Your task to perform on an android device: Go to Maps Image 0: 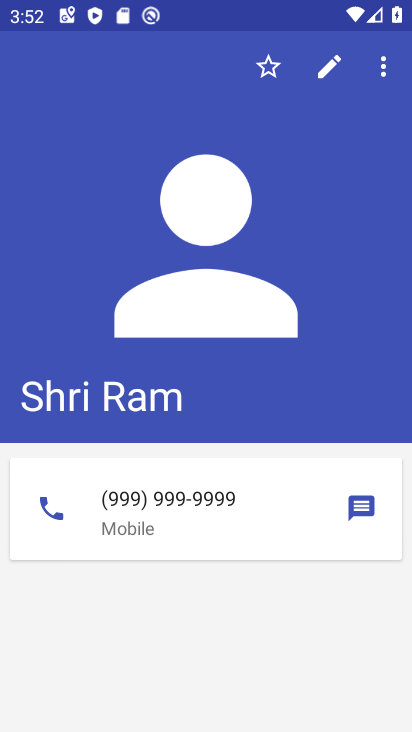
Step 0: press home button
Your task to perform on an android device: Go to Maps Image 1: 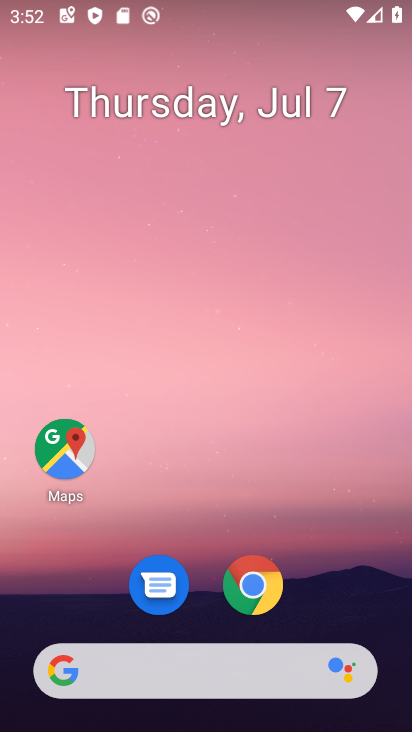
Step 1: click (66, 448)
Your task to perform on an android device: Go to Maps Image 2: 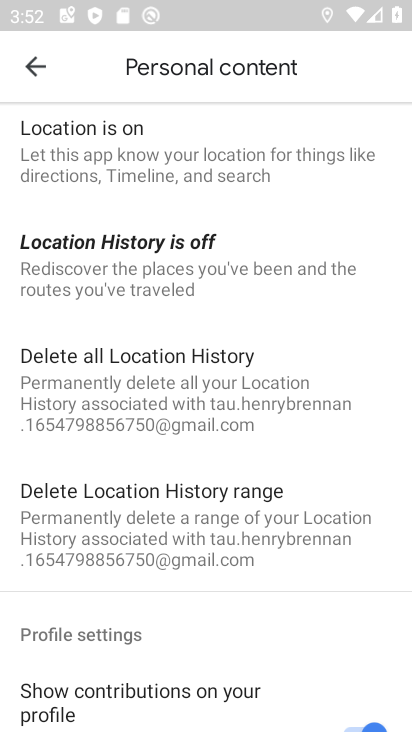
Step 2: click (36, 66)
Your task to perform on an android device: Go to Maps Image 3: 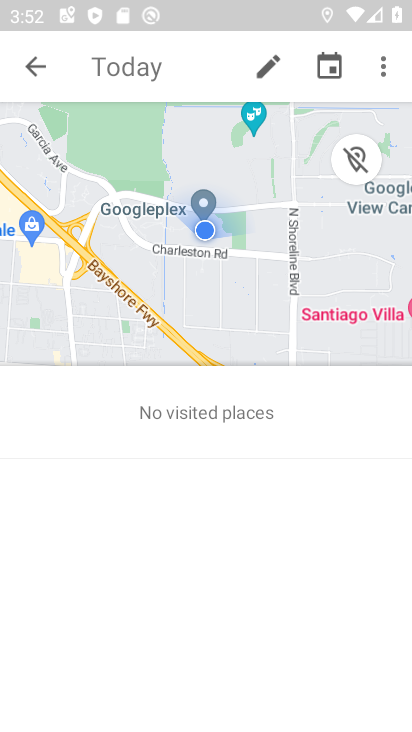
Step 3: click (36, 66)
Your task to perform on an android device: Go to Maps Image 4: 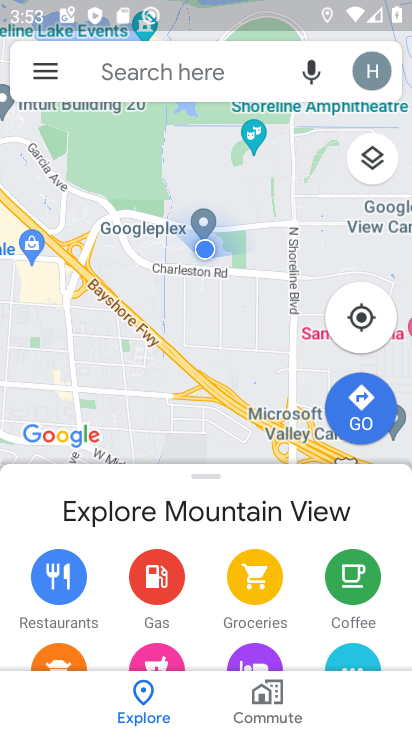
Step 4: task complete